Your task to perform on an android device: Go to location settings Image 0: 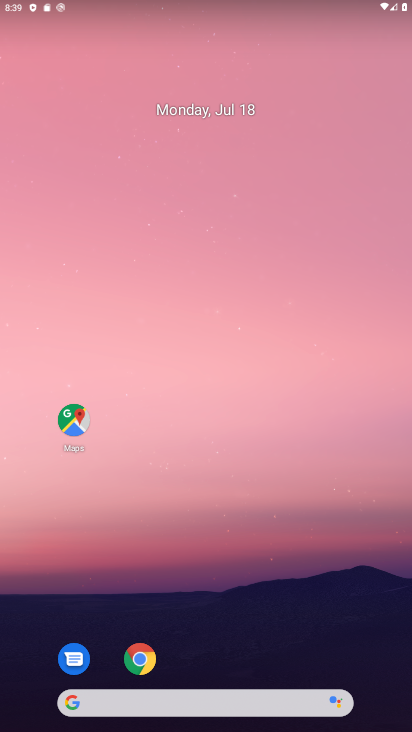
Step 0: drag from (288, 313) to (267, 99)
Your task to perform on an android device: Go to location settings Image 1: 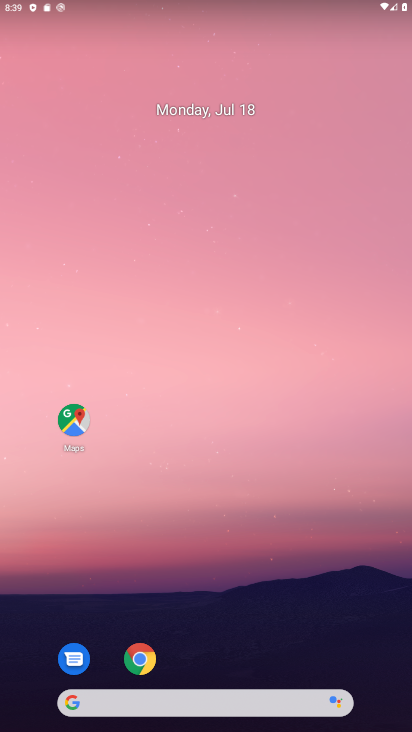
Step 1: drag from (255, 119) to (259, 18)
Your task to perform on an android device: Go to location settings Image 2: 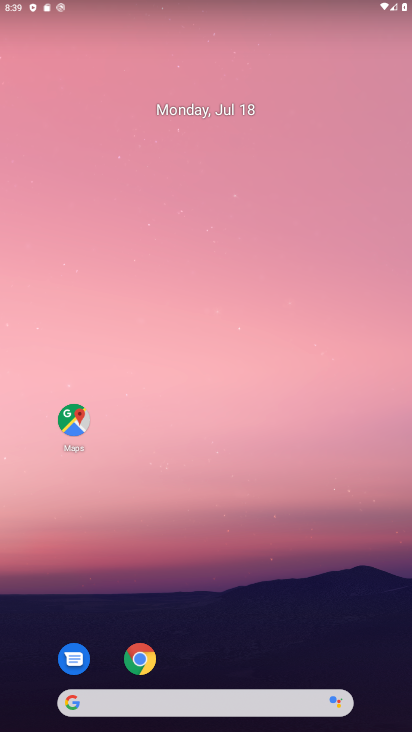
Step 2: drag from (294, 584) to (294, 8)
Your task to perform on an android device: Go to location settings Image 3: 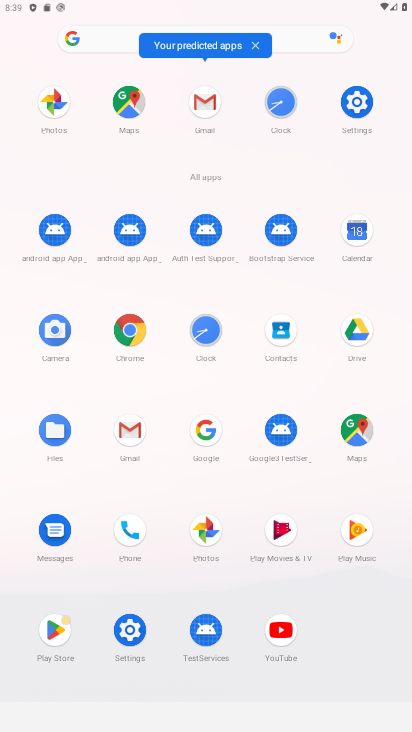
Step 3: click (361, 100)
Your task to perform on an android device: Go to location settings Image 4: 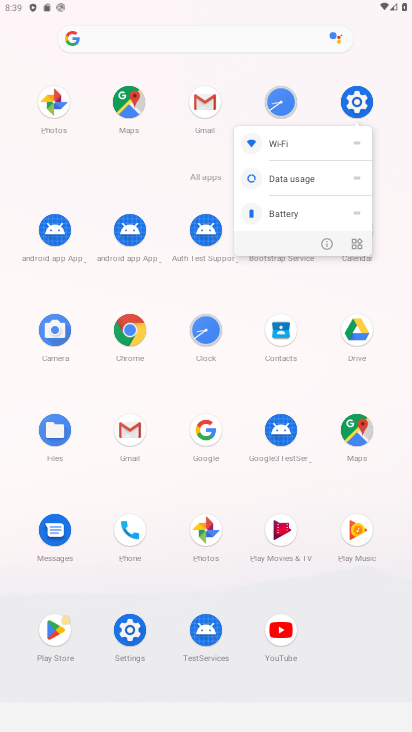
Step 4: click (361, 100)
Your task to perform on an android device: Go to location settings Image 5: 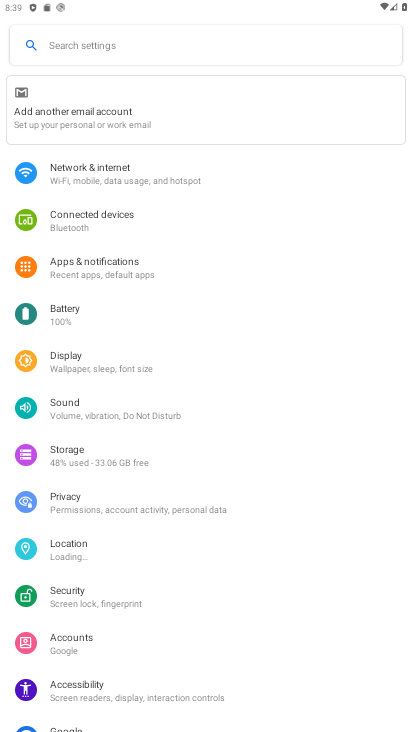
Step 5: click (81, 532)
Your task to perform on an android device: Go to location settings Image 6: 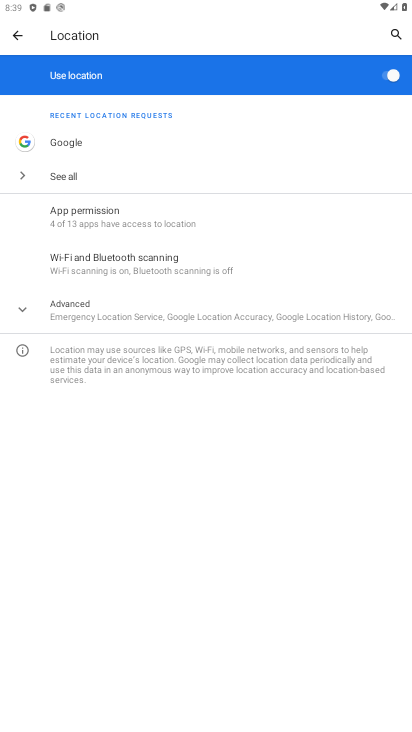
Step 6: task complete